Your task to perform on an android device: Open Android settings Image 0: 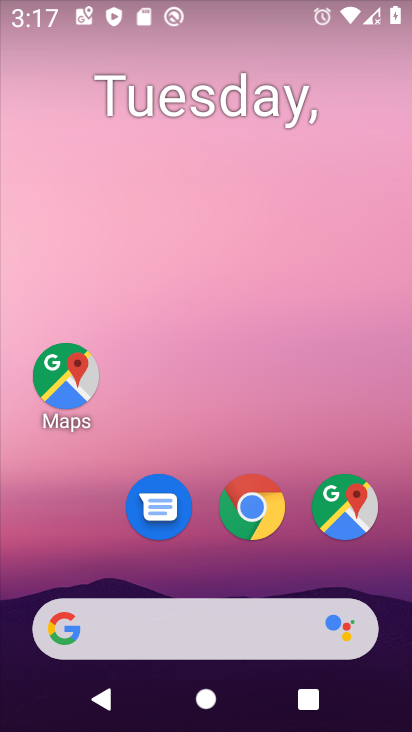
Step 0: drag from (288, 542) to (308, 97)
Your task to perform on an android device: Open Android settings Image 1: 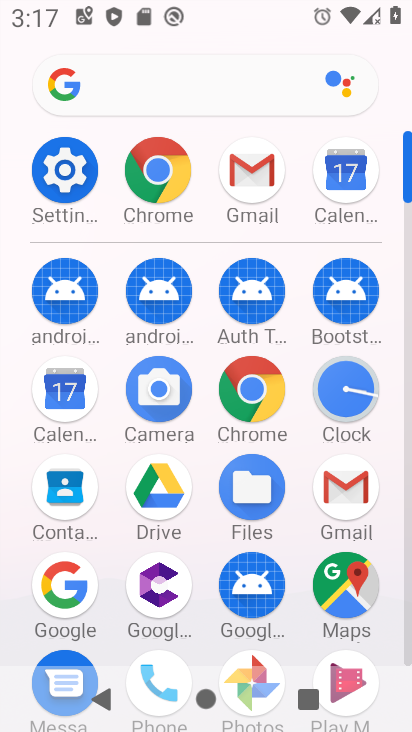
Step 1: click (72, 175)
Your task to perform on an android device: Open Android settings Image 2: 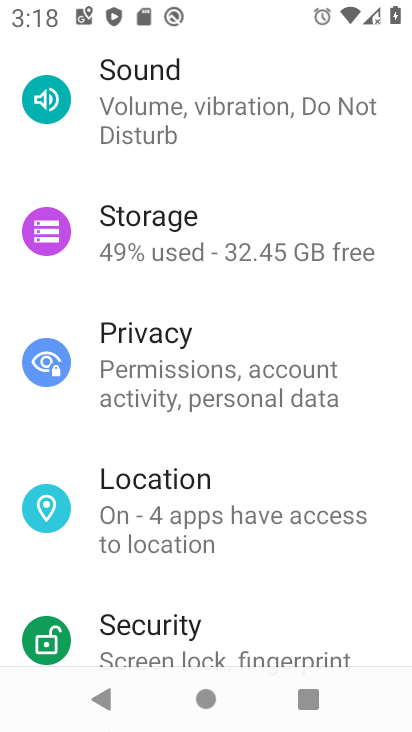
Step 2: task complete